Your task to perform on an android device: Open wifi settings Image 0: 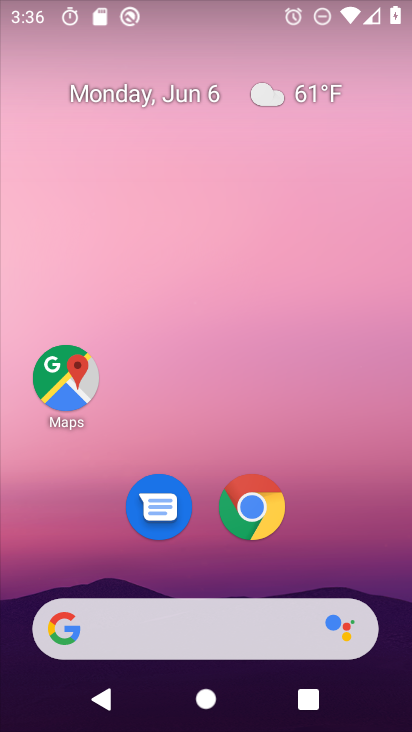
Step 0: drag from (194, 572) to (201, 233)
Your task to perform on an android device: Open wifi settings Image 1: 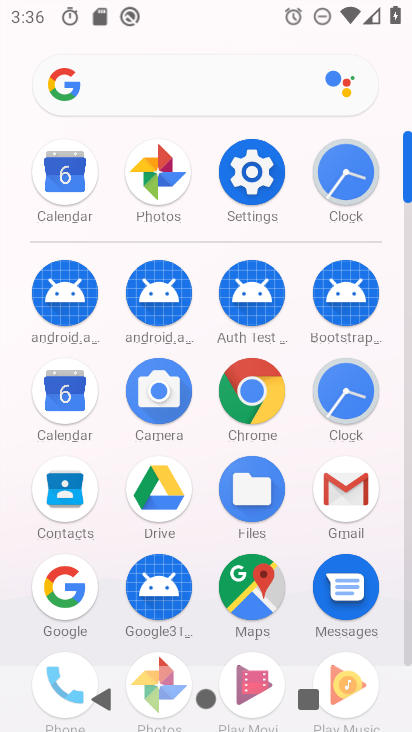
Step 1: click (251, 195)
Your task to perform on an android device: Open wifi settings Image 2: 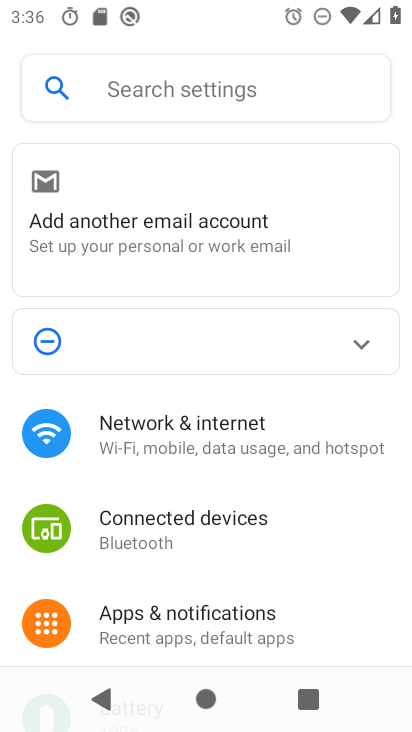
Step 2: click (183, 418)
Your task to perform on an android device: Open wifi settings Image 3: 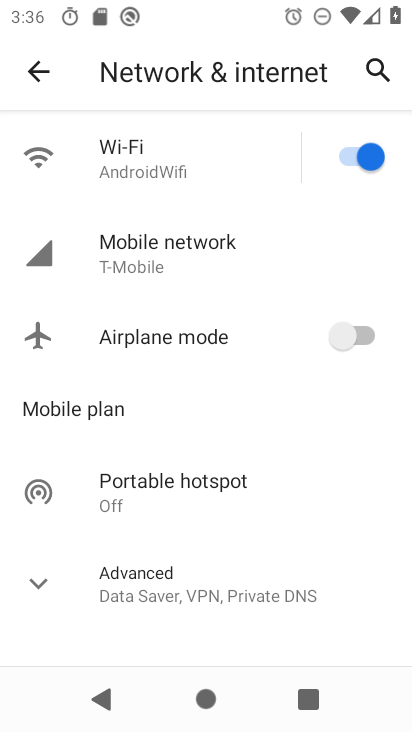
Step 3: click (149, 176)
Your task to perform on an android device: Open wifi settings Image 4: 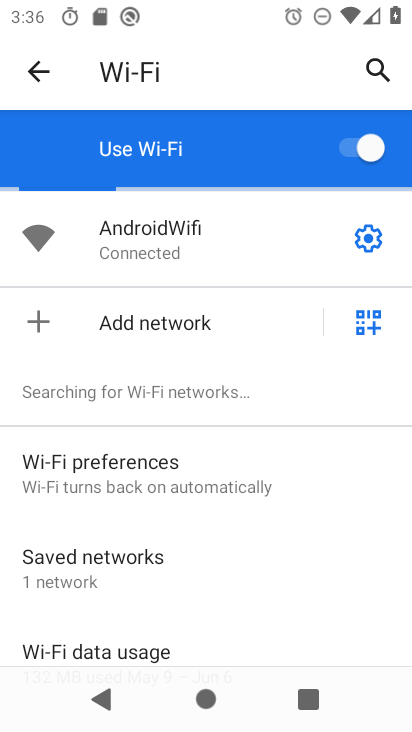
Step 4: task complete